Your task to perform on an android device: change the clock display to digital Image 0: 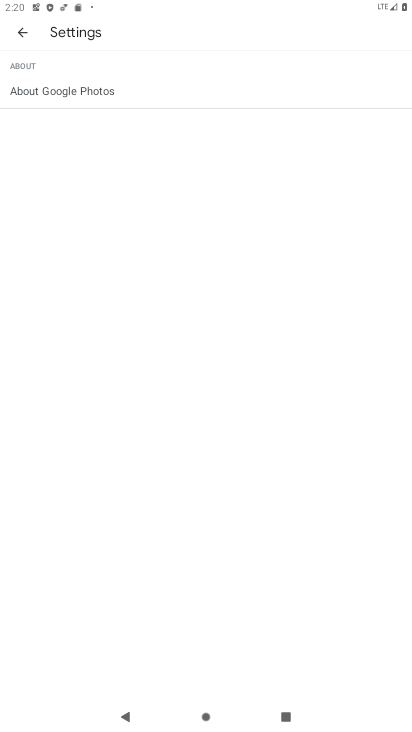
Step 0: press home button
Your task to perform on an android device: change the clock display to digital Image 1: 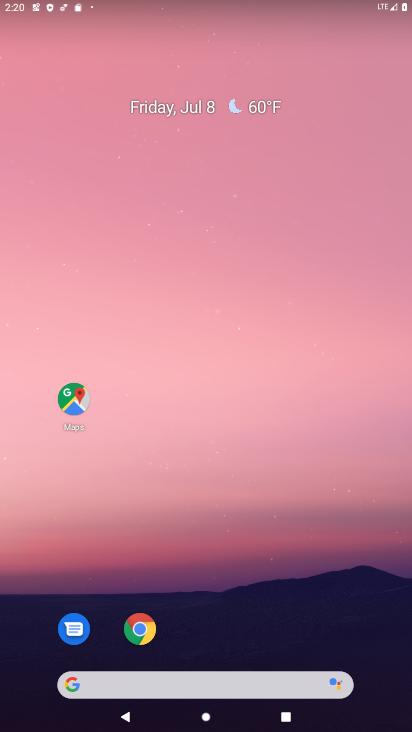
Step 1: drag from (214, 634) to (206, 180)
Your task to perform on an android device: change the clock display to digital Image 2: 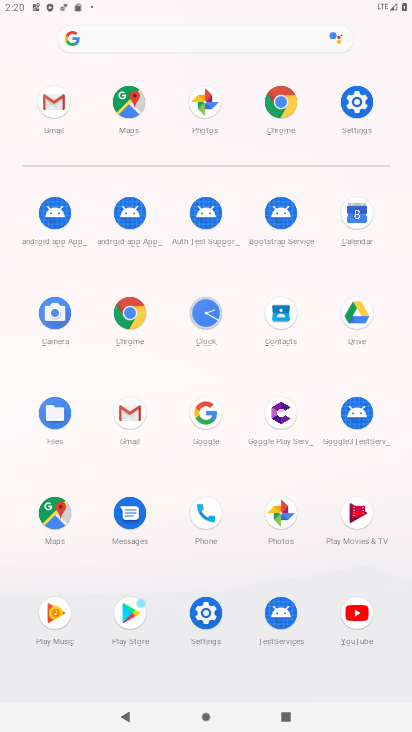
Step 2: click (221, 317)
Your task to perform on an android device: change the clock display to digital Image 3: 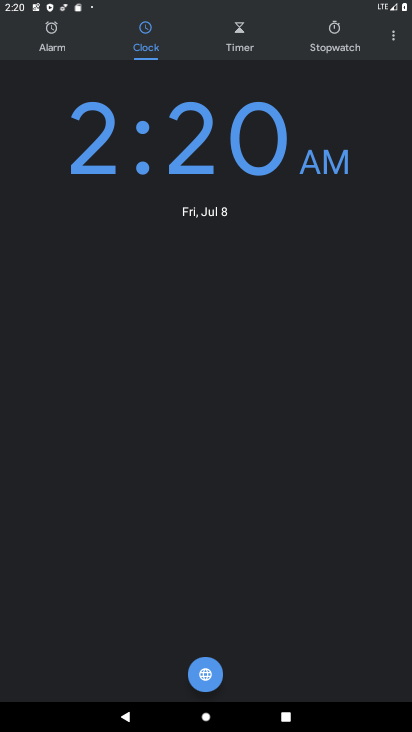
Step 3: click (396, 39)
Your task to perform on an android device: change the clock display to digital Image 4: 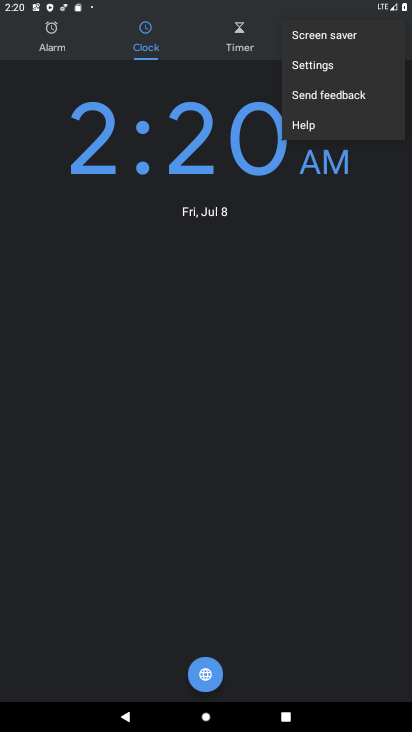
Step 4: click (338, 64)
Your task to perform on an android device: change the clock display to digital Image 5: 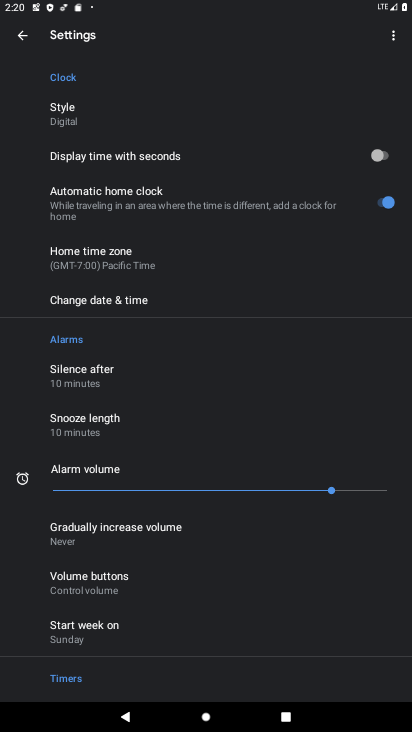
Step 5: task complete